Your task to perform on an android device: Go to battery settings Image 0: 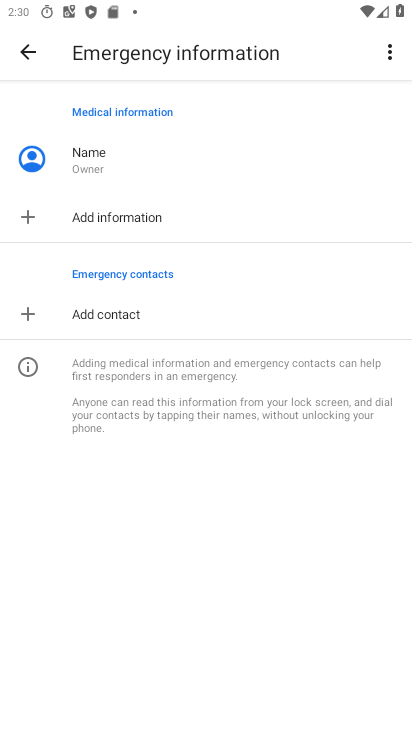
Step 0: drag from (405, 686) to (336, 197)
Your task to perform on an android device: Go to battery settings Image 1: 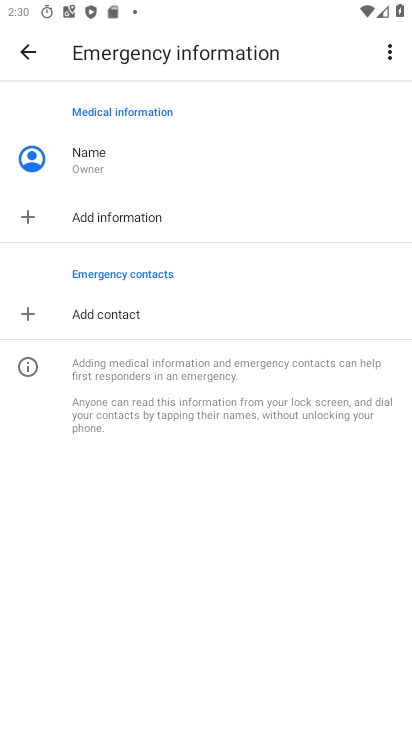
Step 1: press home button
Your task to perform on an android device: Go to battery settings Image 2: 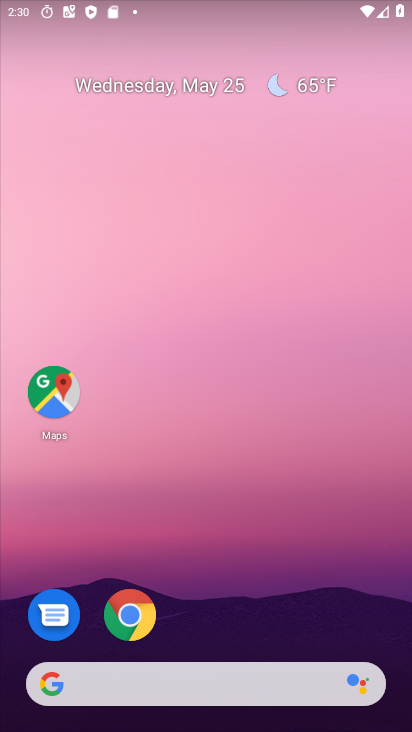
Step 2: drag from (401, 710) to (381, 251)
Your task to perform on an android device: Go to battery settings Image 3: 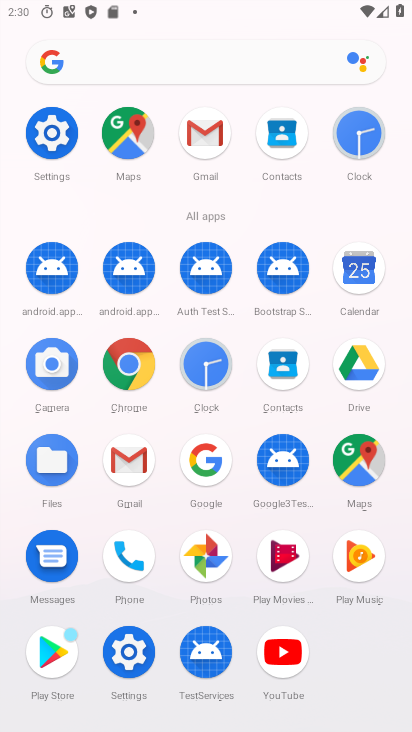
Step 3: click (64, 132)
Your task to perform on an android device: Go to battery settings Image 4: 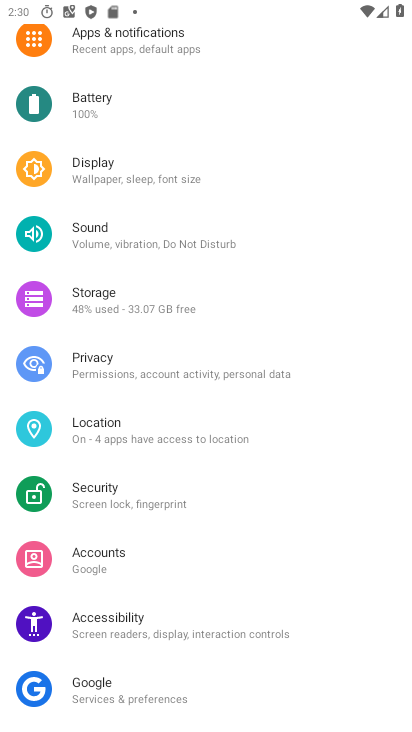
Step 4: click (95, 104)
Your task to perform on an android device: Go to battery settings Image 5: 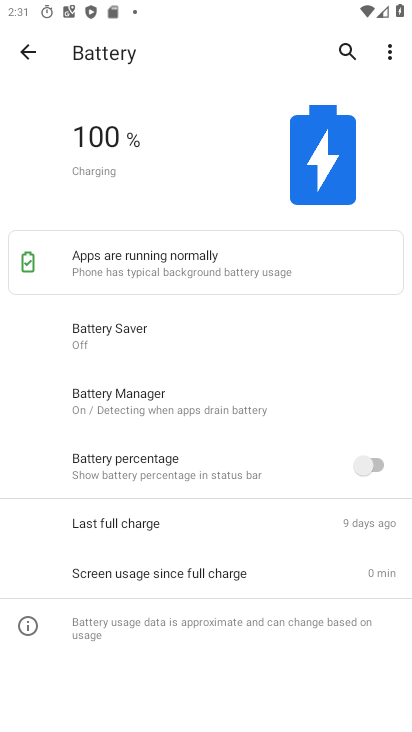
Step 5: task complete